Your task to perform on an android device: Open notification settings Image 0: 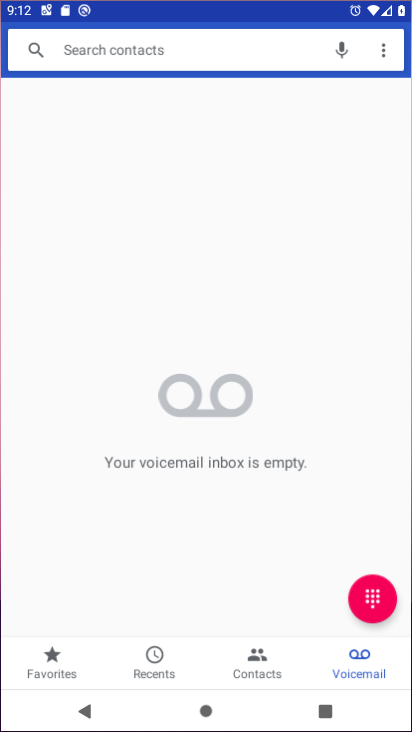
Step 0: press home button
Your task to perform on an android device: Open notification settings Image 1: 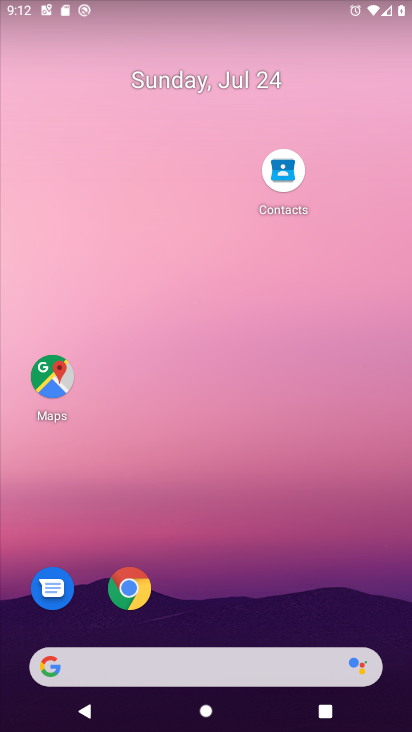
Step 1: drag from (207, 611) to (202, 44)
Your task to perform on an android device: Open notification settings Image 2: 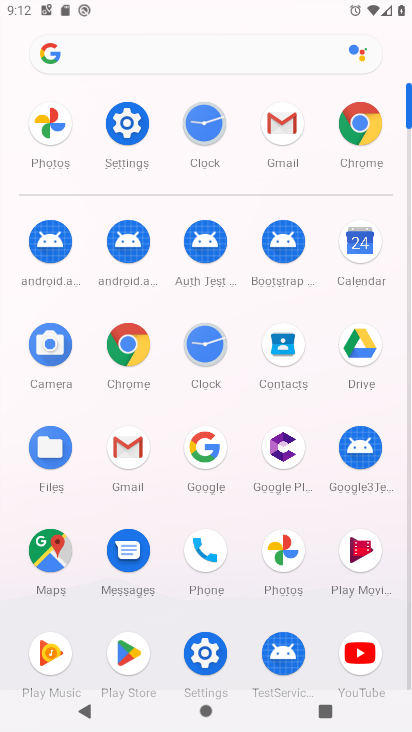
Step 2: click (122, 116)
Your task to perform on an android device: Open notification settings Image 3: 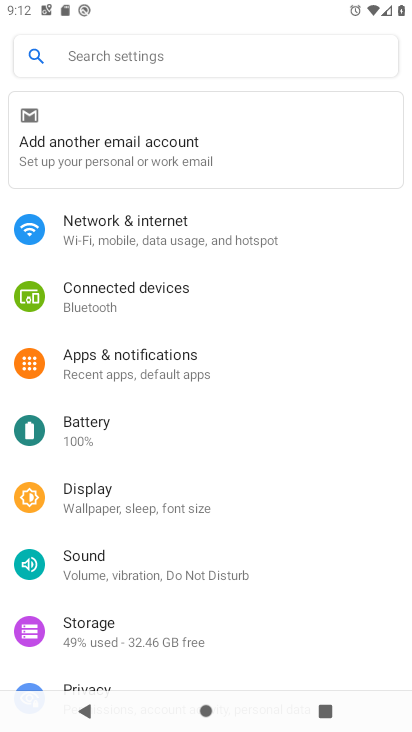
Step 3: click (201, 363)
Your task to perform on an android device: Open notification settings Image 4: 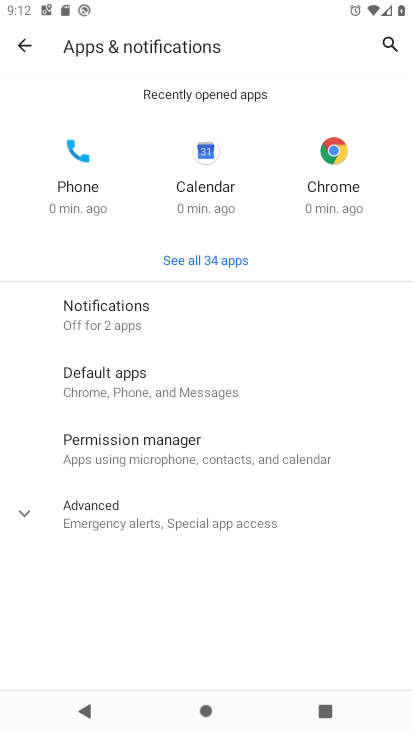
Step 4: click (176, 314)
Your task to perform on an android device: Open notification settings Image 5: 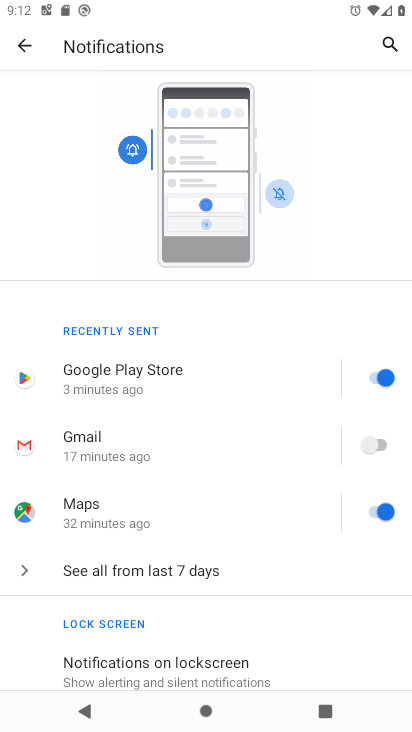
Step 5: click (261, 665)
Your task to perform on an android device: Open notification settings Image 6: 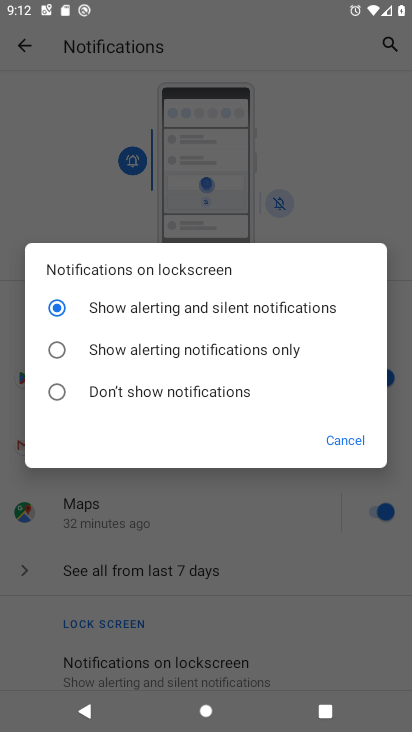
Step 6: click (54, 347)
Your task to perform on an android device: Open notification settings Image 7: 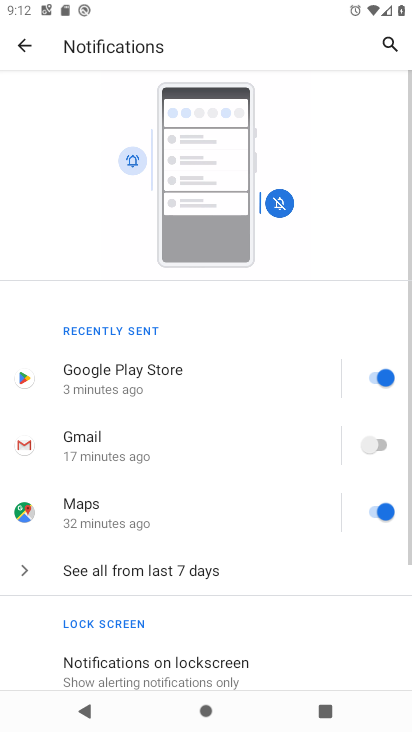
Step 7: drag from (206, 584) to (235, 220)
Your task to perform on an android device: Open notification settings Image 8: 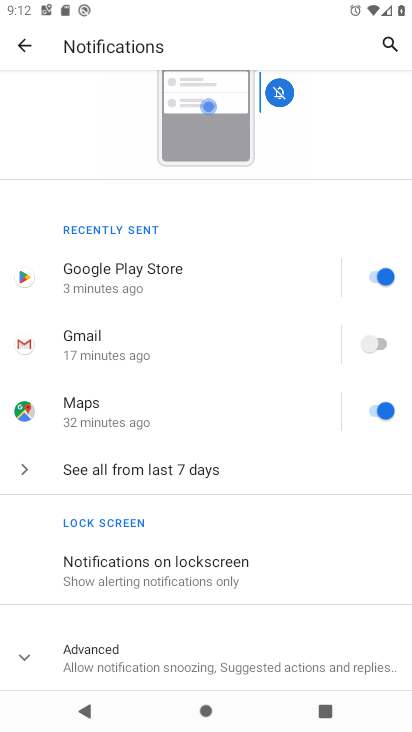
Step 8: click (28, 655)
Your task to perform on an android device: Open notification settings Image 9: 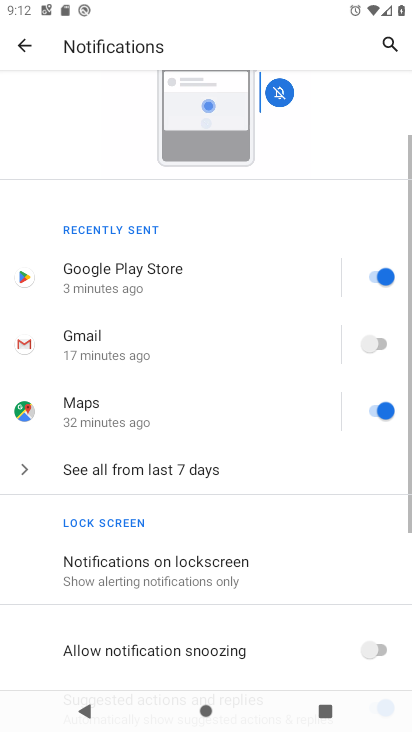
Step 9: click (380, 273)
Your task to perform on an android device: Open notification settings Image 10: 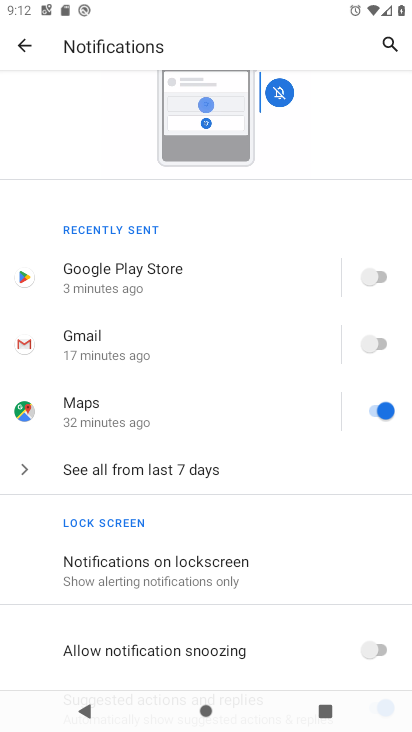
Step 10: click (379, 406)
Your task to perform on an android device: Open notification settings Image 11: 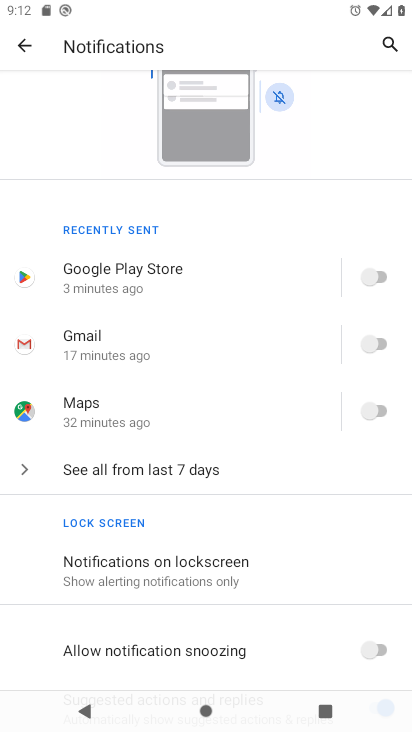
Step 11: drag from (197, 607) to (208, 57)
Your task to perform on an android device: Open notification settings Image 12: 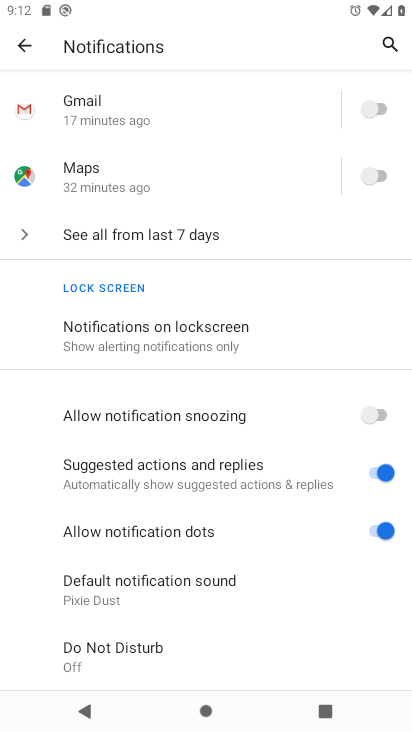
Step 12: click (377, 478)
Your task to perform on an android device: Open notification settings Image 13: 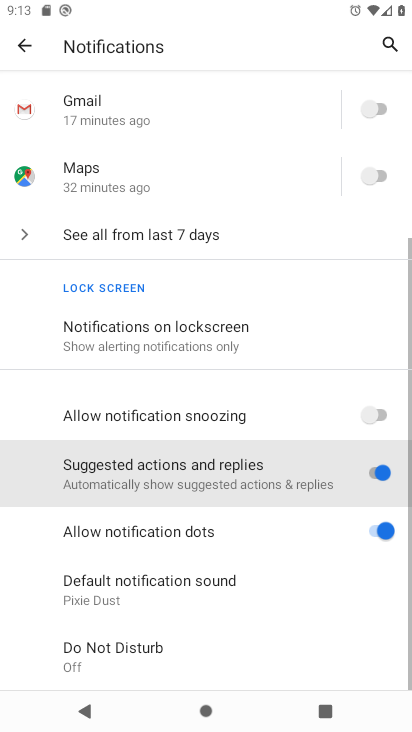
Step 13: click (372, 530)
Your task to perform on an android device: Open notification settings Image 14: 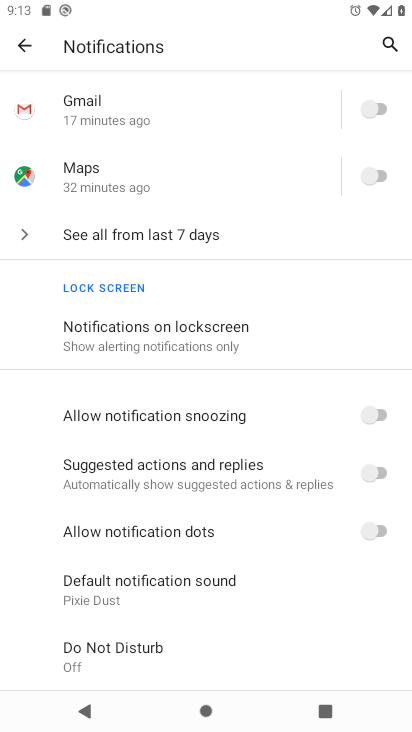
Step 14: task complete